Your task to perform on an android device: Toggle the flashlight Image 0: 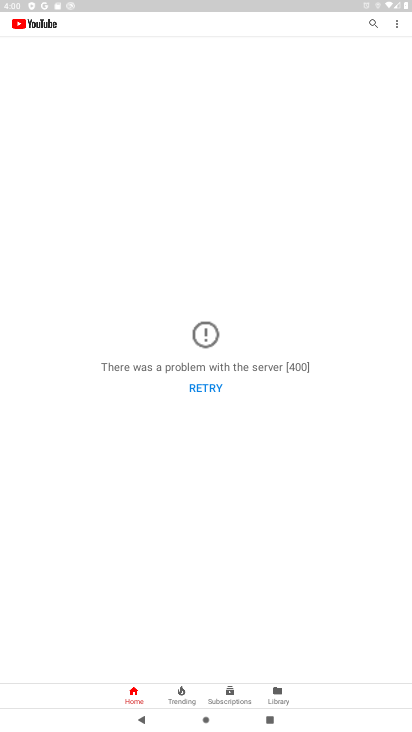
Step 0: press home button
Your task to perform on an android device: Toggle the flashlight Image 1: 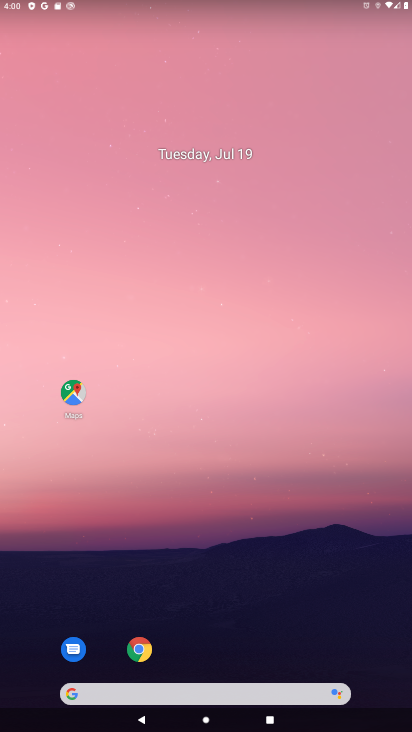
Step 1: drag from (303, 611) to (186, 80)
Your task to perform on an android device: Toggle the flashlight Image 2: 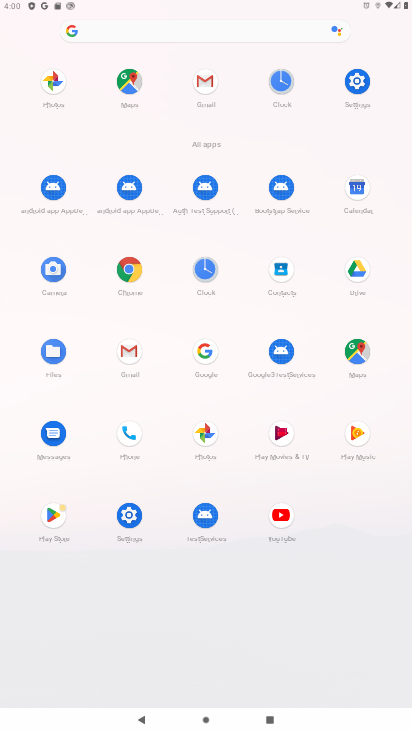
Step 2: drag from (350, 0) to (280, 405)
Your task to perform on an android device: Toggle the flashlight Image 3: 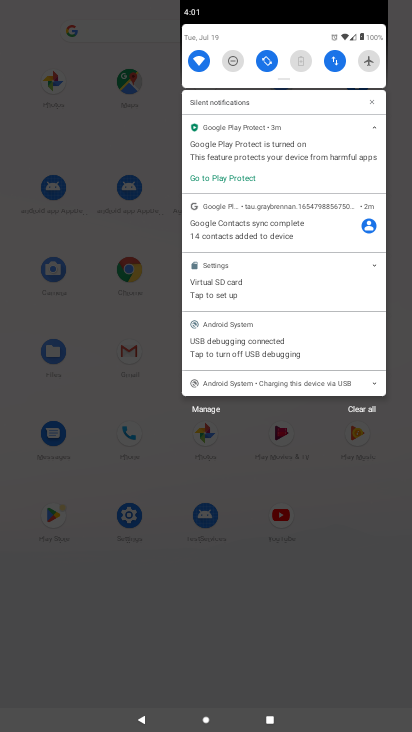
Step 3: drag from (284, 70) to (301, 442)
Your task to perform on an android device: Toggle the flashlight Image 4: 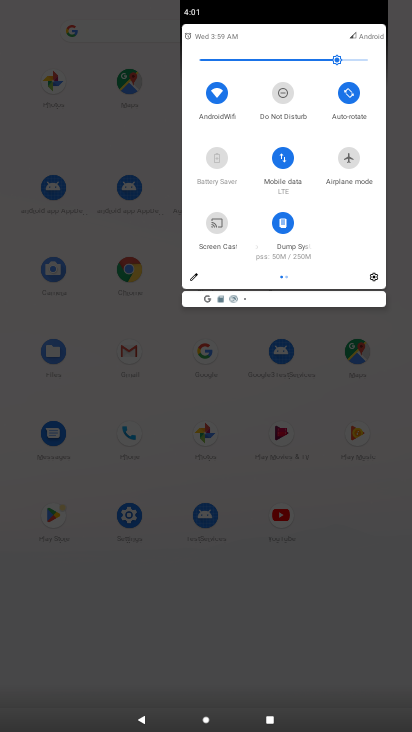
Step 4: click (192, 274)
Your task to perform on an android device: Toggle the flashlight Image 5: 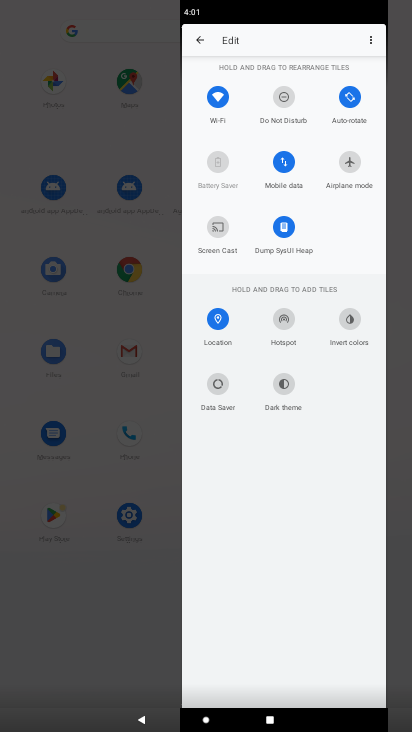
Step 5: task complete